Your task to perform on an android device: toggle notification dots Image 0: 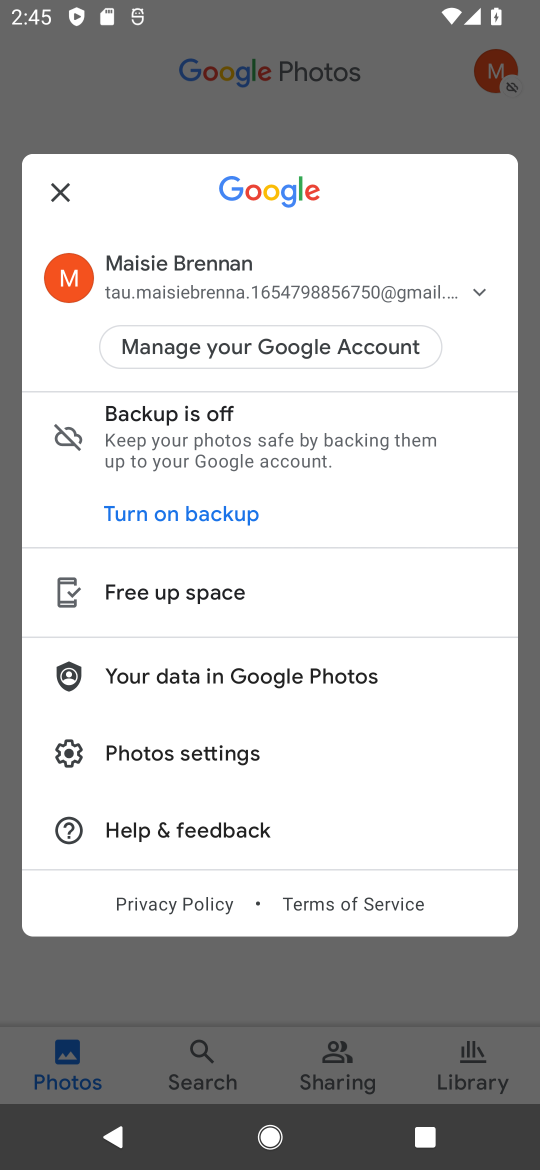
Step 0: task complete